Your task to perform on an android device: Open Chrome and go to settings Image 0: 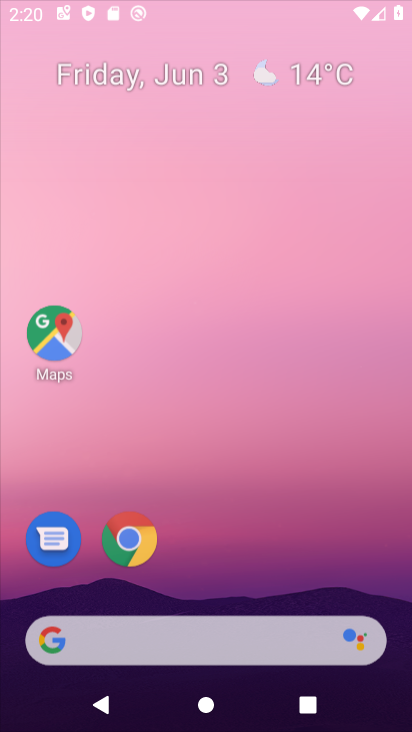
Step 0: drag from (345, 589) to (390, 130)
Your task to perform on an android device: Open Chrome and go to settings Image 1: 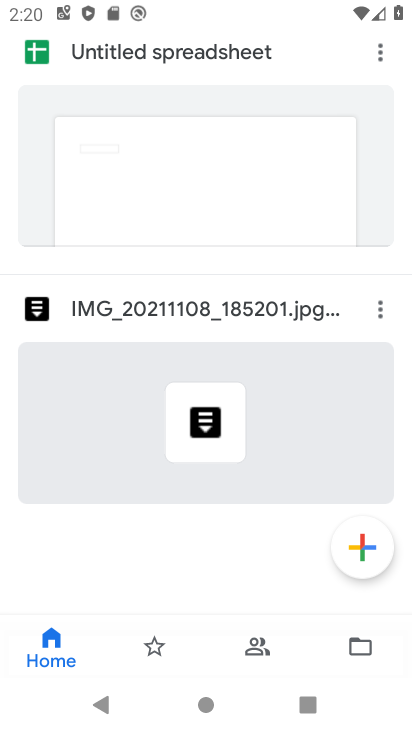
Step 1: press home button
Your task to perform on an android device: Open Chrome and go to settings Image 2: 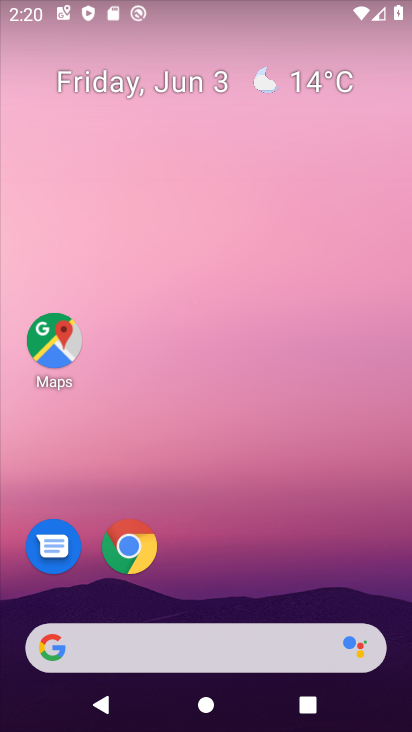
Step 2: drag from (290, 521) to (358, 49)
Your task to perform on an android device: Open Chrome and go to settings Image 3: 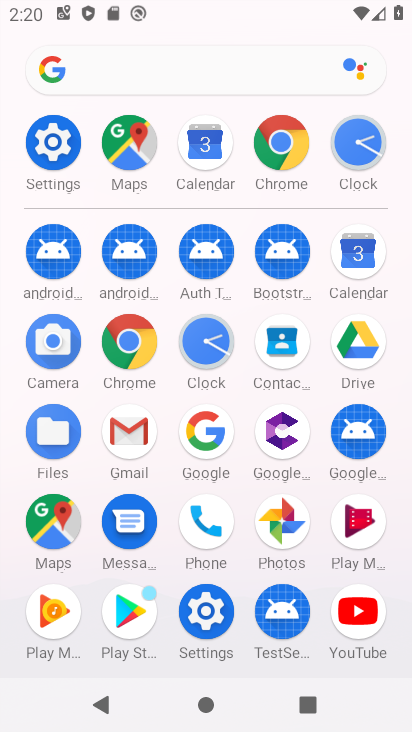
Step 3: click (133, 336)
Your task to perform on an android device: Open Chrome and go to settings Image 4: 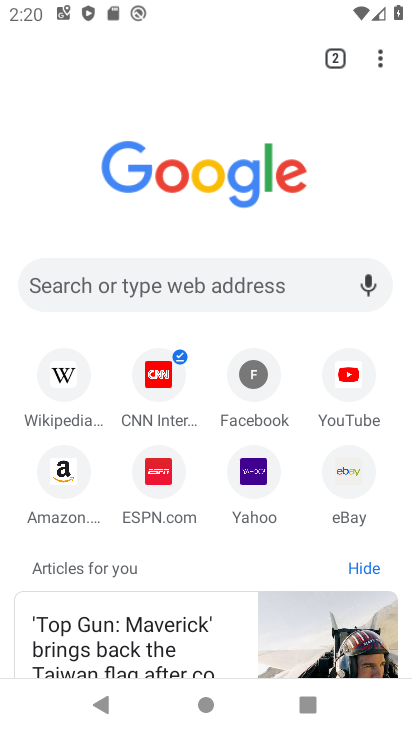
Step 4: task complete